Your task to perform on an android device: Open Chrome and go to the settings page Image 0: 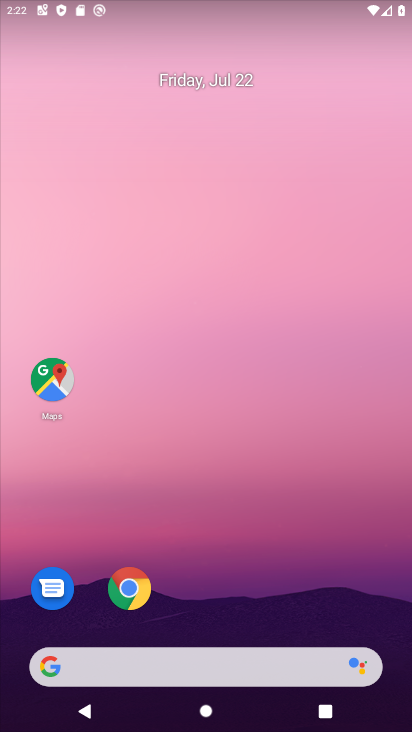
Step 0: press home button
Your task to perform on an android device: Open Chrome and go to the settings page Image 1: 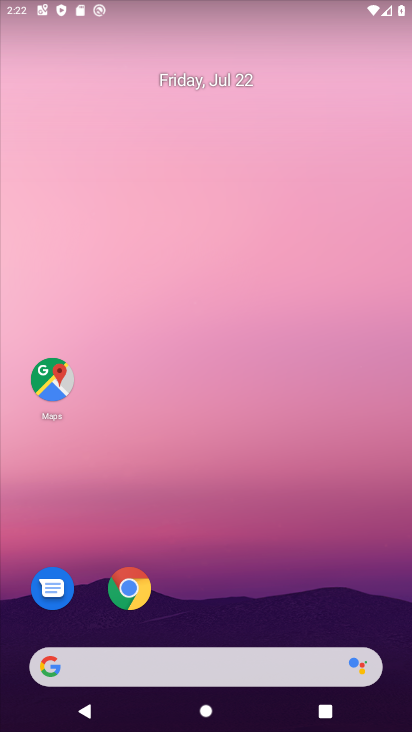
Step 1: drag from (199, 628) to (215, 5)
Your task to perform on an android device: Open Chrome and go to the settings page Image 2: 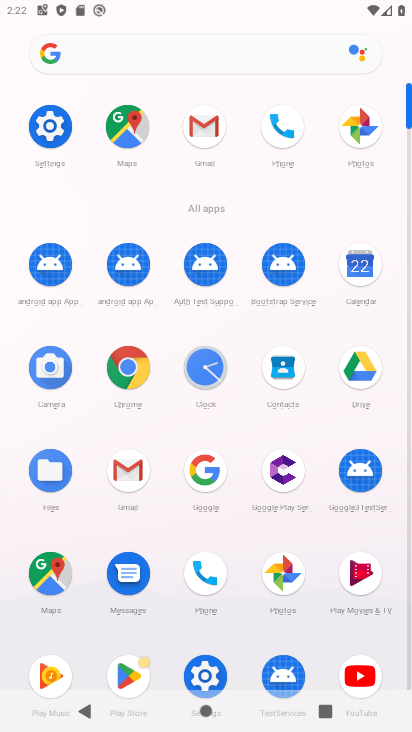
Step 2: click (52, 115)
Your task to perform on an android device: Open Chrome and go to the settings page Image 3: 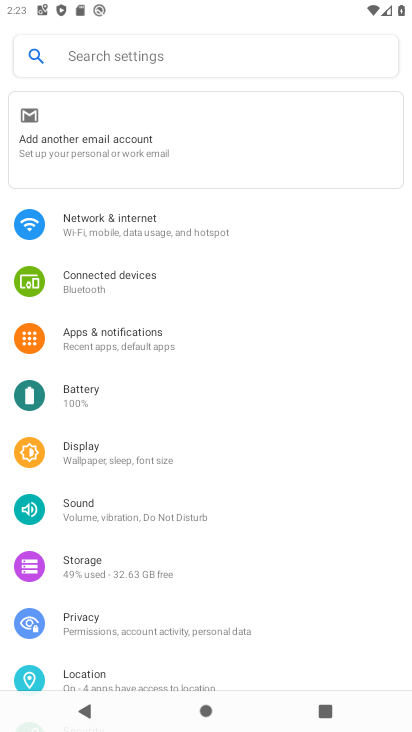
Step 3: press home button
Your task to perform on an android device: Open Chrome and go to the settings page Image 4: 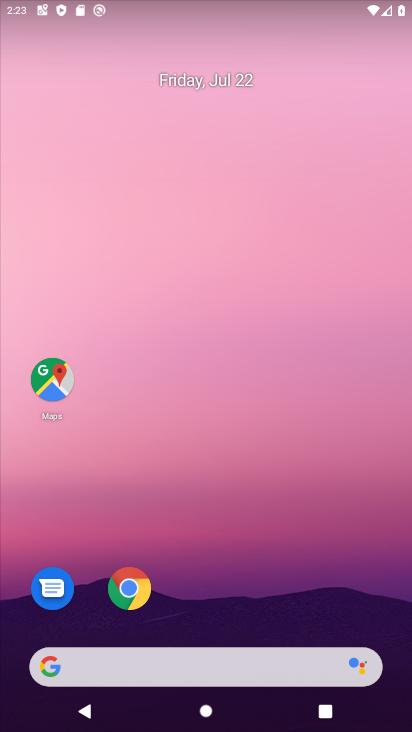
Step 4: click (131, 582)
Your task to perform on an android device: Open Chrome and go to the settings page Image 5: 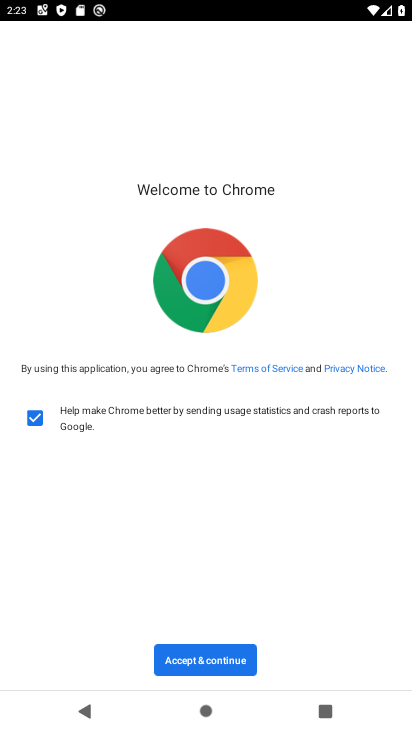
Step 5: click (200, 652)
Your task to perform on an android device: Open Chrome and go to the settings page Image 6: 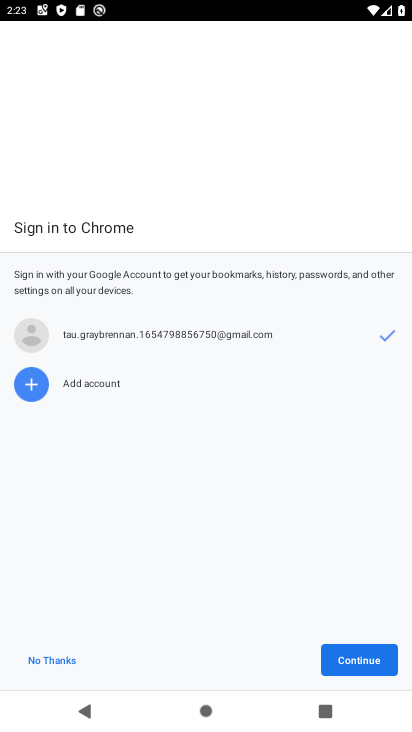
Step 6: click (351, 663)
Your task to perform on an android device: Open Chrome and go to the settings page Image 7: 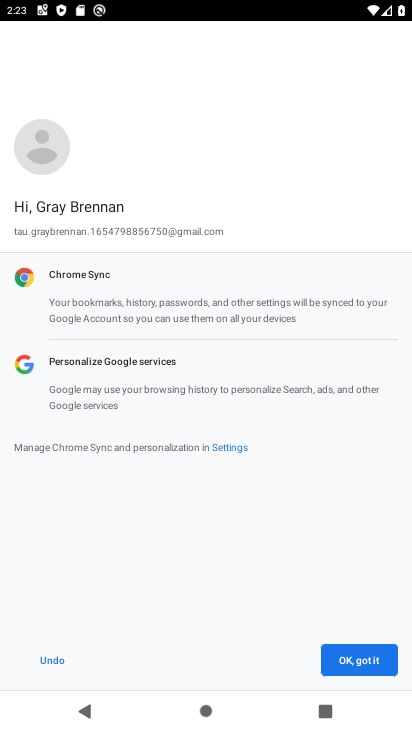
Step 7: click (350, 661)
Your task to perform on an android device: Open Chrome and go to the settings page Image 8: 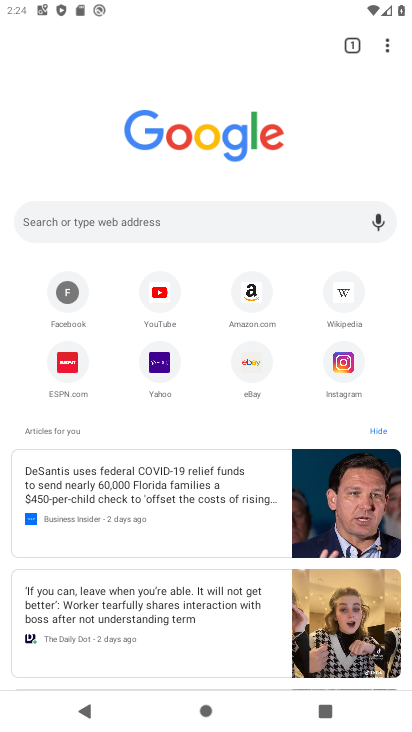
Step 8: click (391, 38)
Your task to perform on an android device: Open Chrome and go to the settings page Image 9: 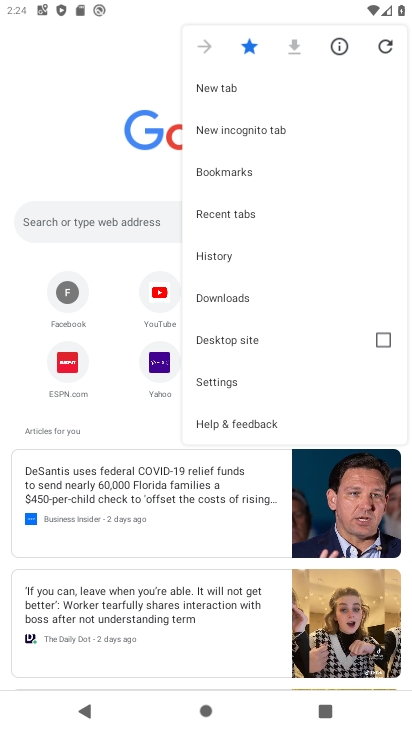
Step 9: click (261, 378)
Your task to perform on an android device: Open Chrome and go to the settings page Image 10: 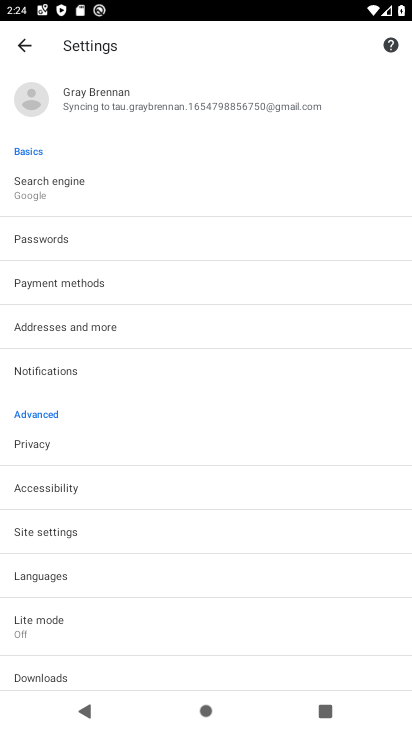
Step 10: task complete